Your task to perform on an android device: check storage Image 0: 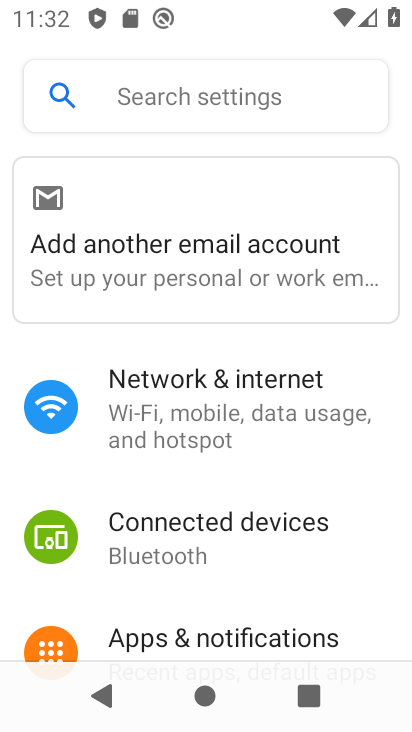
Step 0: drag from (198, 601) to (278, 107)
Your task to perform on an android device: check storage Image 1: 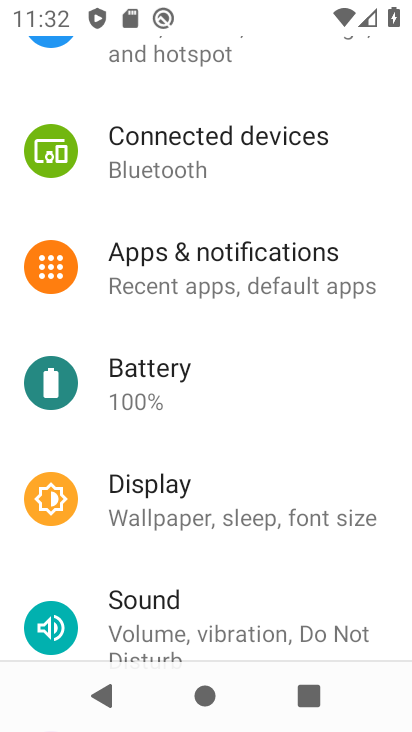
Step 1: drag from (186, 617) to (252, 203)
Your task to perform on an android device: check storage Image 2: 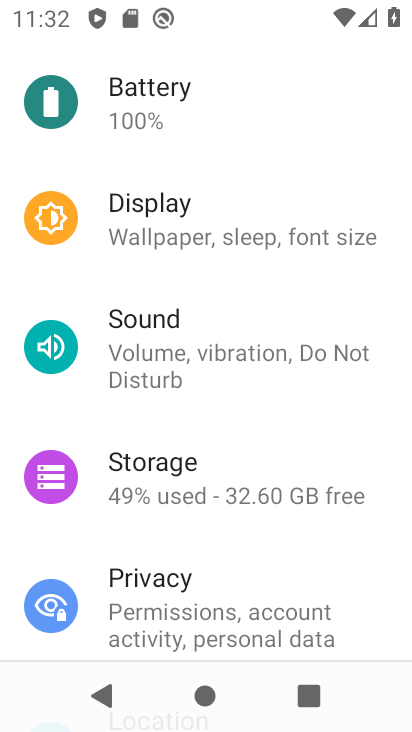
Step 2: click (219, 483)
Your task to perform on an android device: check storage Image 3: 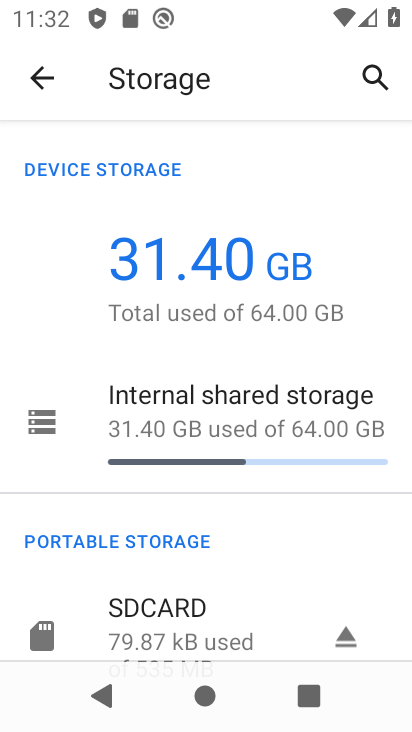
Step 3: task complete